Your task to perform on an android device: Open Google Chrome and click the shortcut for Amazon.com Image 0: 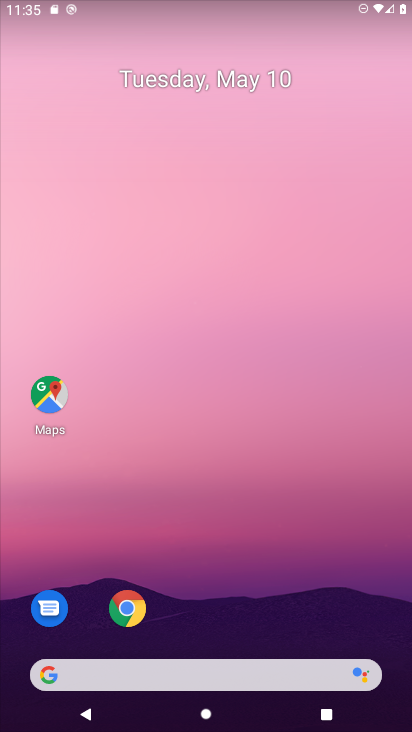
Step 0: drag from (338, 514) to (208, 80)
Your task to perform on an android device: Open Google Chrome and click the shortcut for Amazon.com Image 1: 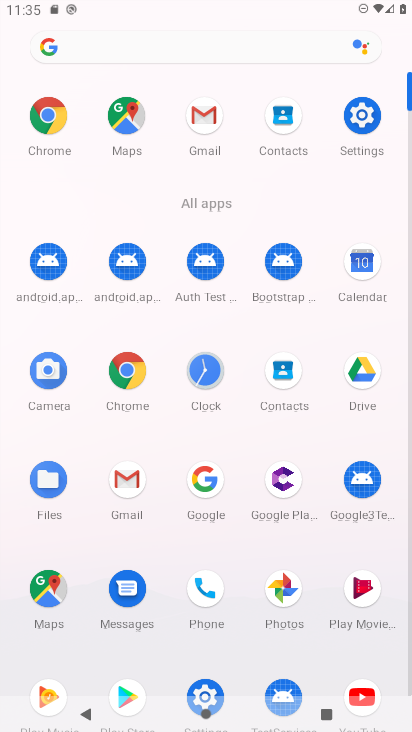
Step 1: click (50, 112)
Your task to perform on an android device: Open Google Chrome and click the shortcut for Amazon.com Image 2: 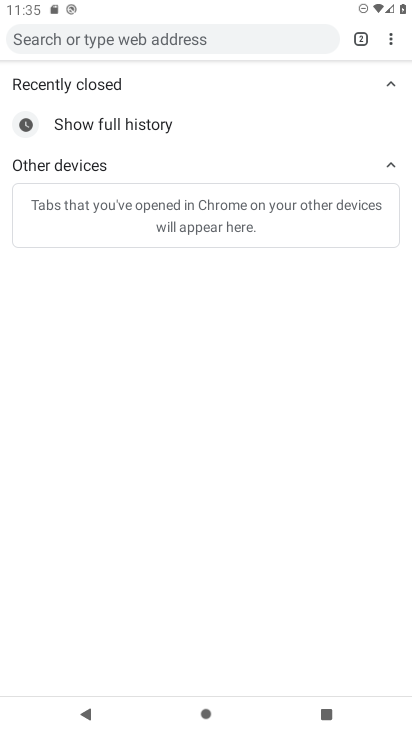
Step 2: drag from (390, 38) to (309, 123)
Your task to perform on an android device: Open Google Chrome and click the shortcut for Amazon.com Image 3: 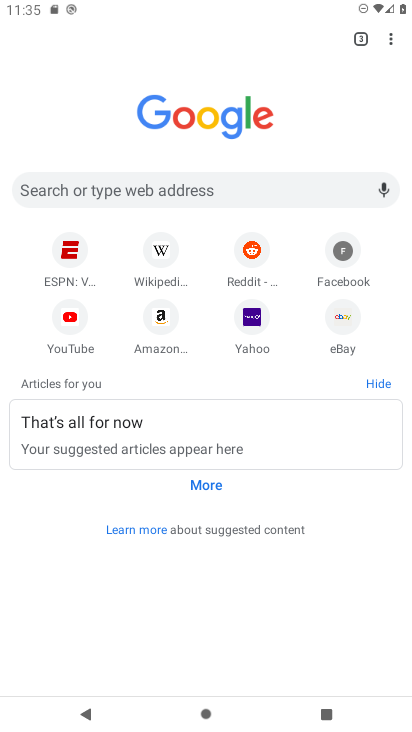
Step 3: click (161, 312)
Your task to perform on an android device: Open Google Chrome and click the shortcut for Amazon.com Image 4: 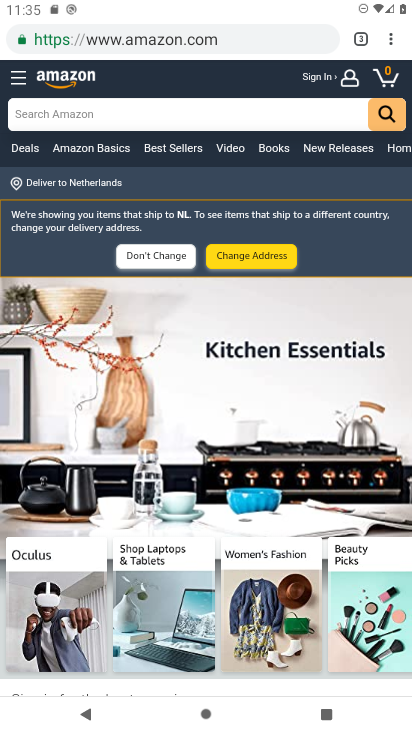
Step 4: task complete